Your task to perform on an android device: Toggle the flashlight Image 0: 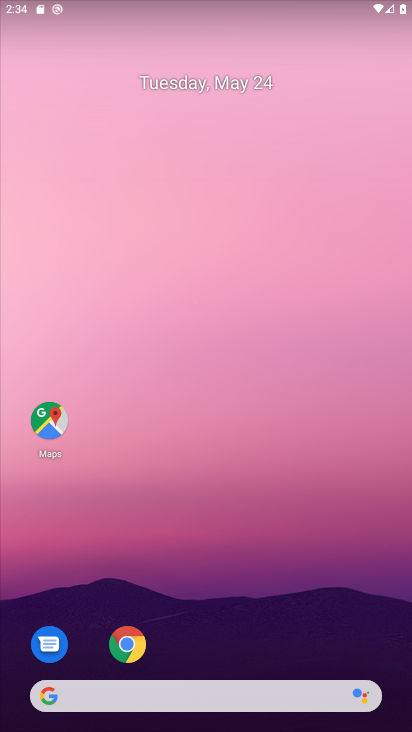
Step 0: drag from (262, 7) to (257, 539)
Your task to perform on an android device: Toggle the flashlight Image 1: 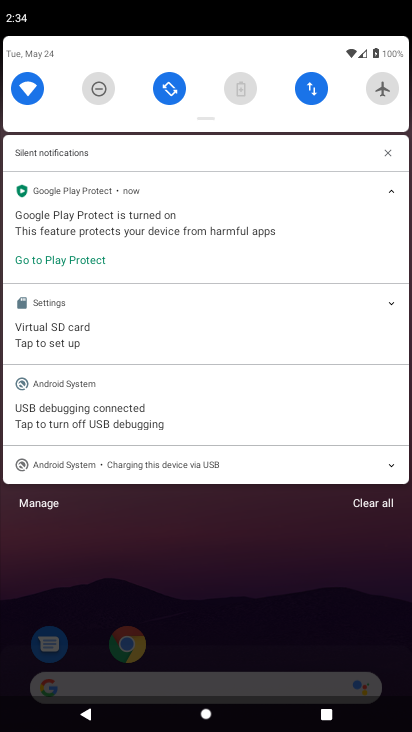
Step 1: task complete